Your task to perform on an android device: Go to settings Image 0: 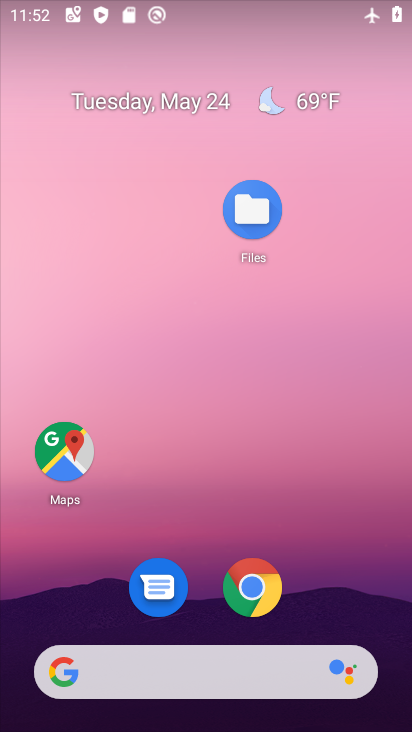
Step 0: drag from (358, 562) to (28, 54)
Your task to perform on an android device: Go to settings Image 1: 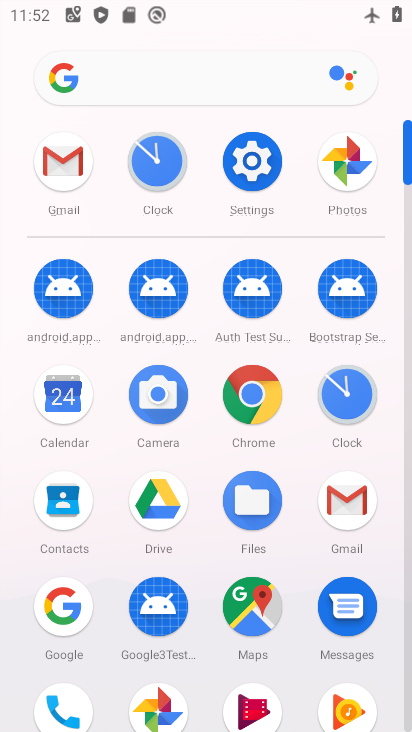
Step 1: click (271, 173)
Your task to perform on an android device: Go to settings Image 2: 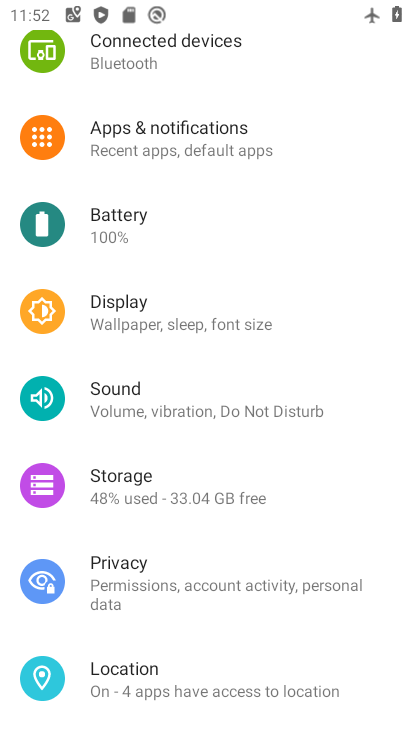
Step 2: task complete